Your task to perform on an android device: turn on improve location accuracy Image 0: 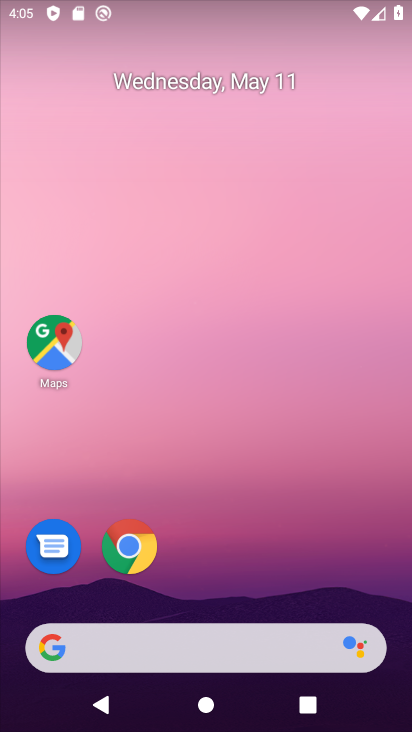
Step 0: drag from (192, 624) to (235, 135)
Your task to perform on an android device: turn on improve location accuracy Image 1: 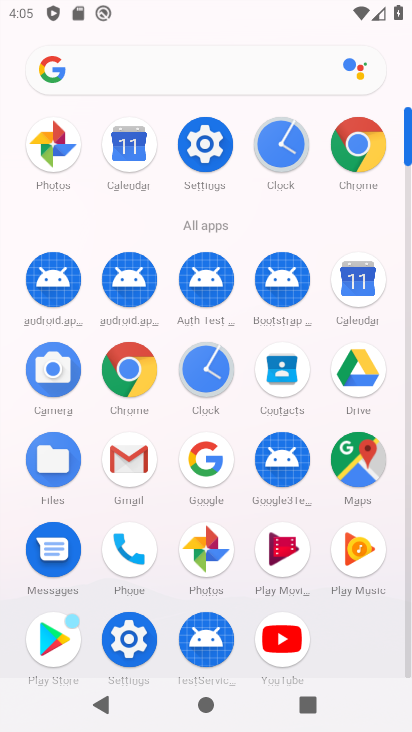
Step 1: click (202, 150)
Your task to perform on an android device: turn on improve location accuracy Image 2: 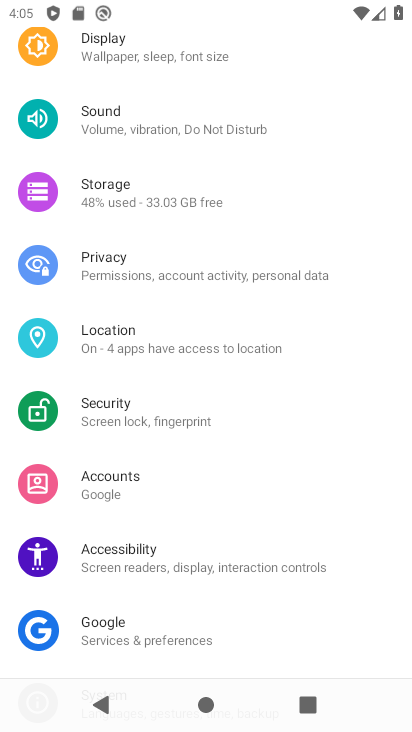
Step 2: drag from (178, 640) to (169, 282)
Your task to perform on an android device: turn on improve location accuracy Image 3: 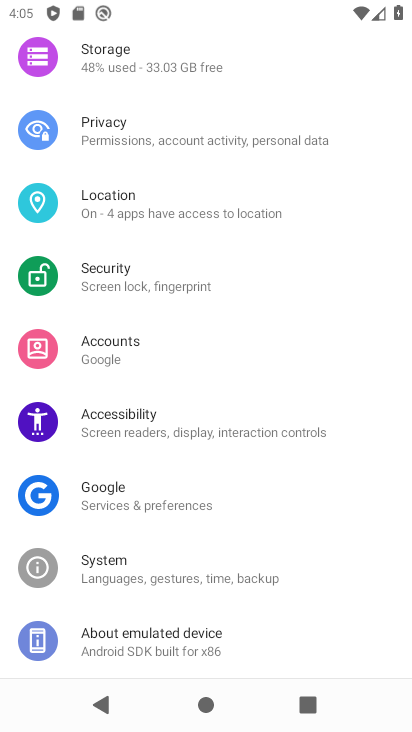
Step 3: click (141, 209)
Your task to perform on an android device: turn on improve location accuracy Image 4: 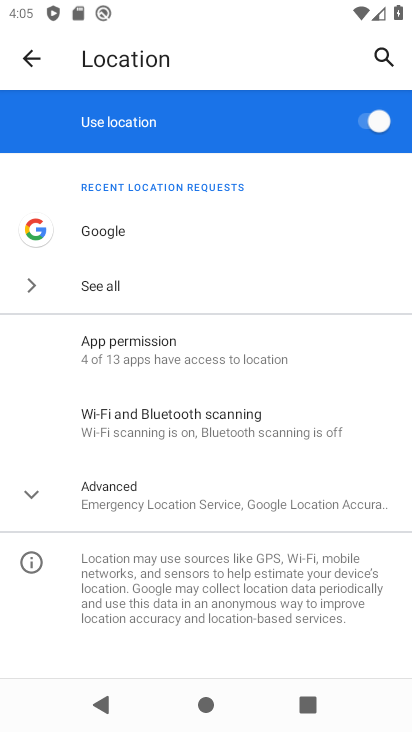
Step 4: click (139, 493)
Your task to perform on an android device: turn on improve location accuracy Image 5: 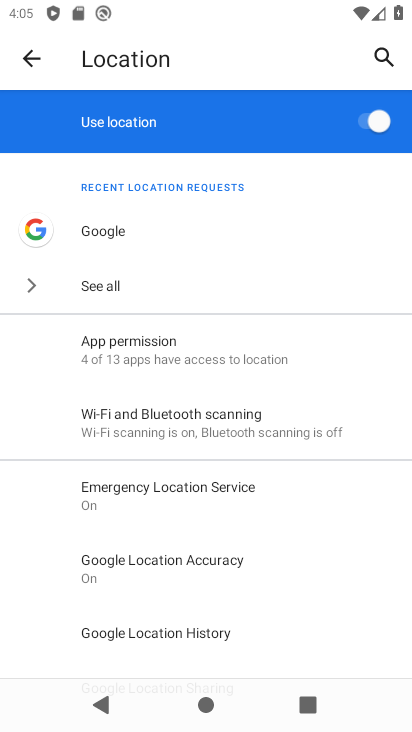
Step 5: click (149, 563)
Your task to perform on an android device: turn on improve location accuracy Image 6: 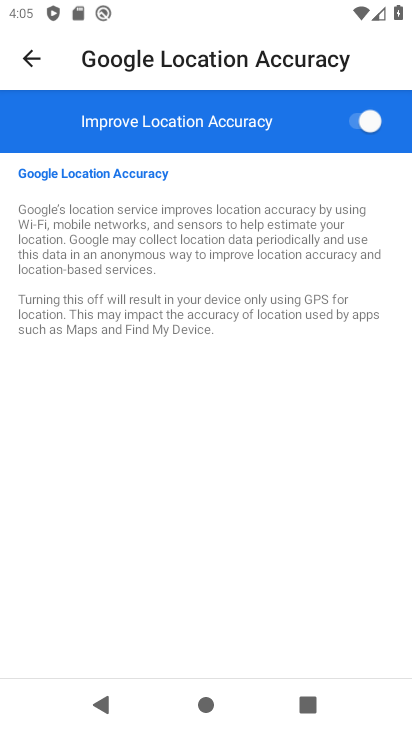
Step 6: task complete